Your task to perform on an android device: change your default location settings in chrome Image 0: 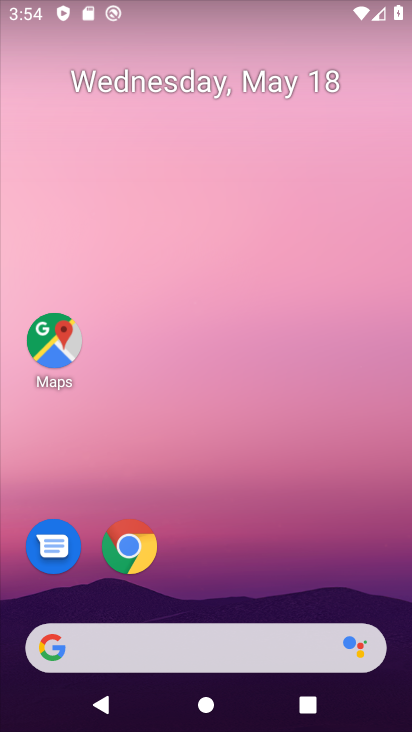
Step 0: drag from (221, 604) to (288, 143)
Your task to perform on an android device: change your default location settings in chrome Image 1: 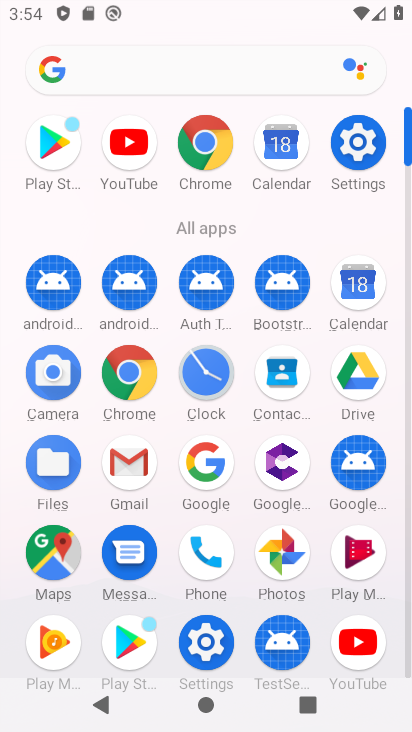
Step 1: click (213, 155)
Your task to perform on an android device: change your default location settings in chrome Image 2: 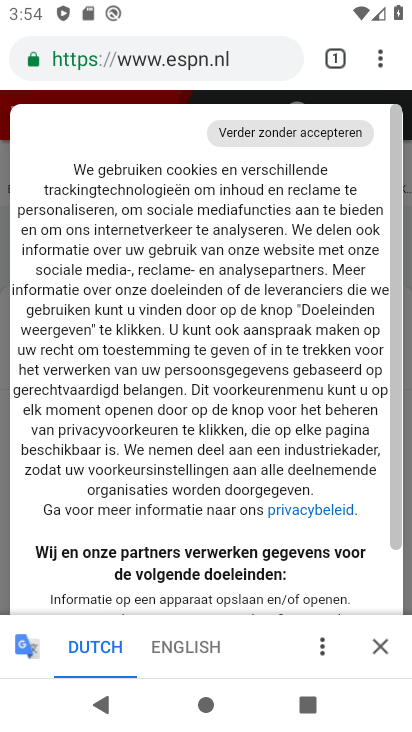
Step 2: click (386, 58)
Your task to perform on an android device: change your default location settings in chrome Image 3: 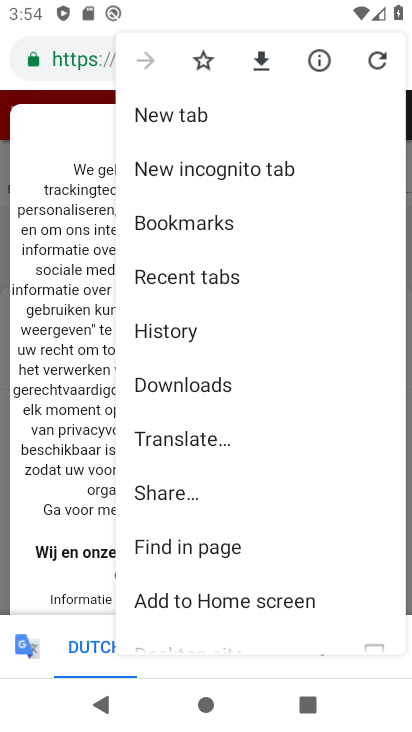
Step 3: drag from (232, 530) to (247, 342)
Your task to perform on an android device: change your default location settings in chrome Image 4: 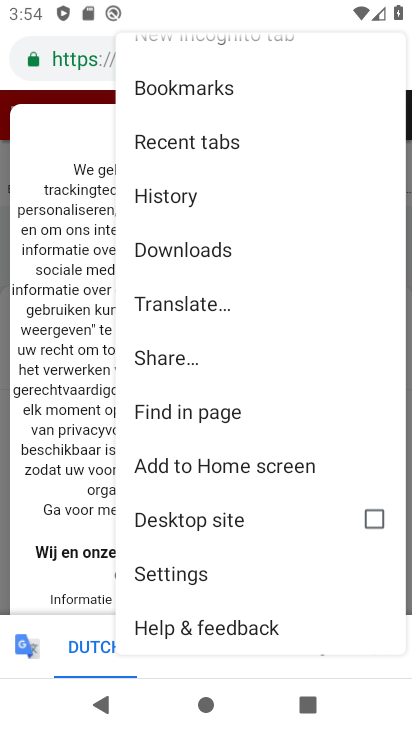
Step 4: click (190, 568)
Your task to perform on an android device: change your default location settings in chrome Image 5: 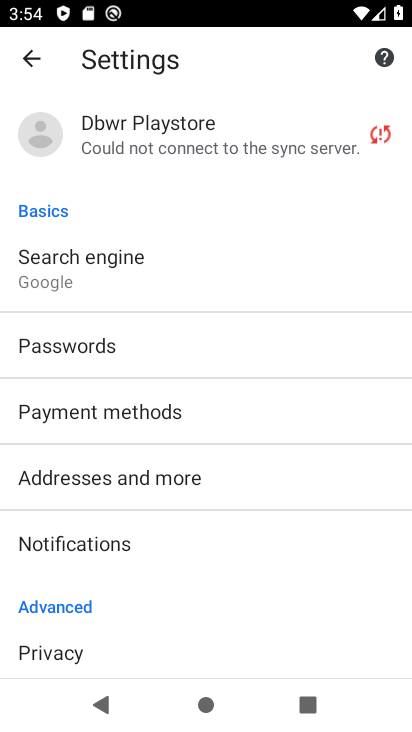
Step 5: drag from (110, 536) to (173, 284)
Your task to perform on an android device: change your default location settings in chrome Image 6: 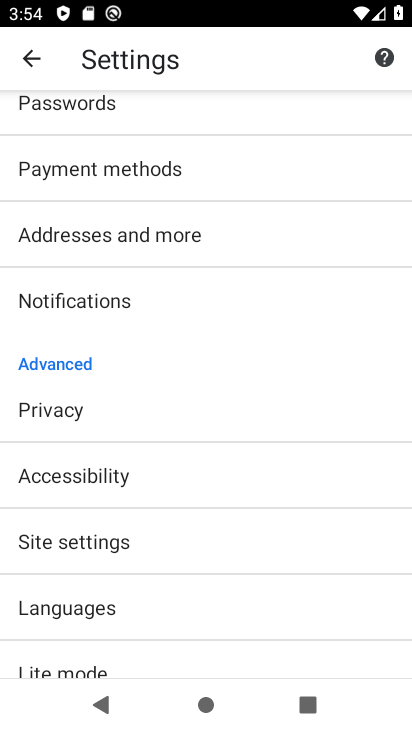
Step 6: drag from (113, 609) to (127, 495)
Your task to perform on an android device: change your default location settings in chrome Image 7: 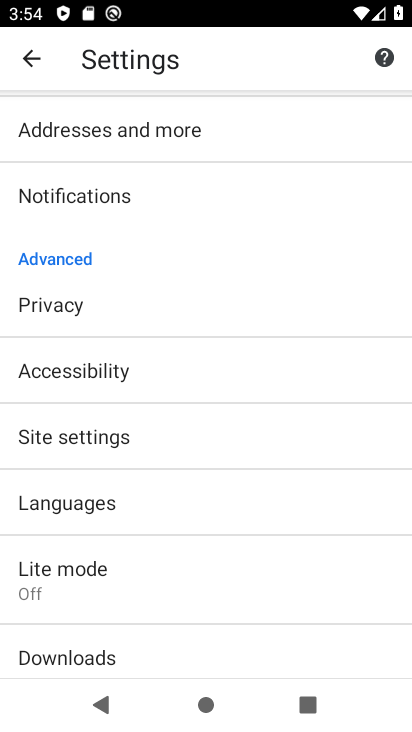
Step 7: click (54, 433)
Your task to perform on an android device: change your default location settings in chrome Image 8: 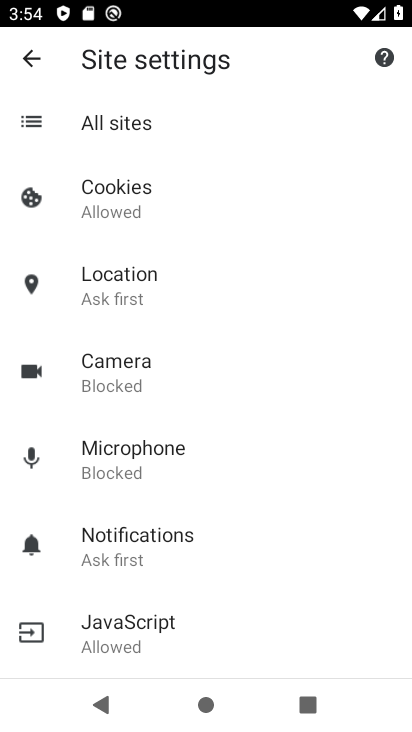
Step 8: click (122, 291)
Your task to perform on an android device: change your default location settings in chrome Image 9: 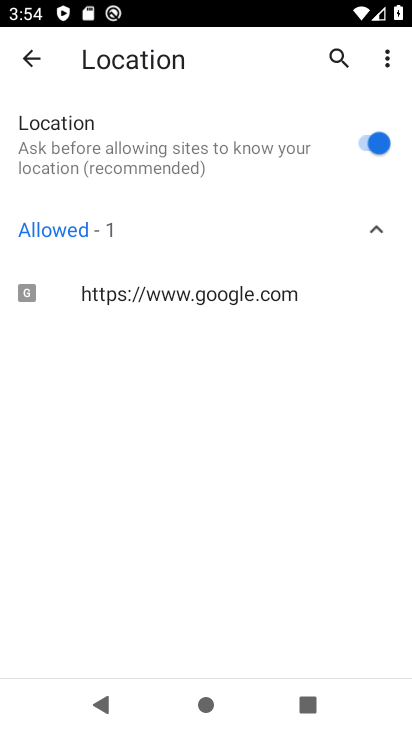
Step 9: click (333, 147)
Your task to perform on an android device: change your default location settings in chrome Image 10: 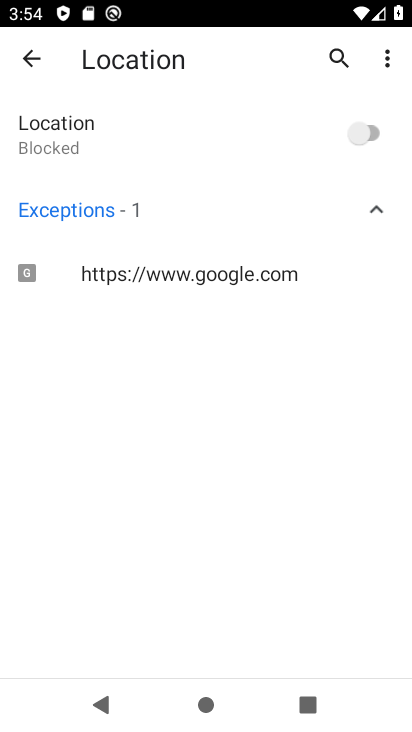
Step 10: task complete